Your task to perform on an android device: Go to Yahoo.com Image 0: 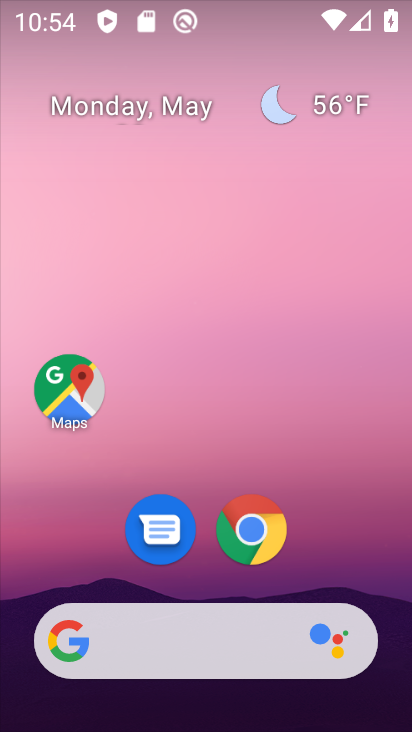
Step 0: click (252, 527)
Your task to perform on an android device: Go to Yahoo.com Image 1: 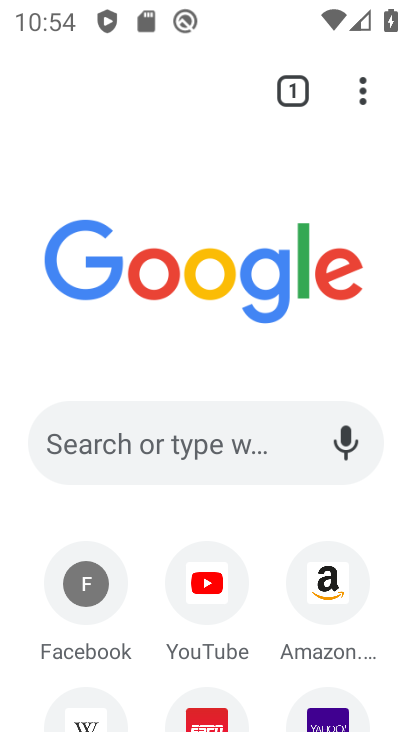
Step 1: click (214, 457)
Your task to perform on an android device: Go to Yahoo.com Image 2: 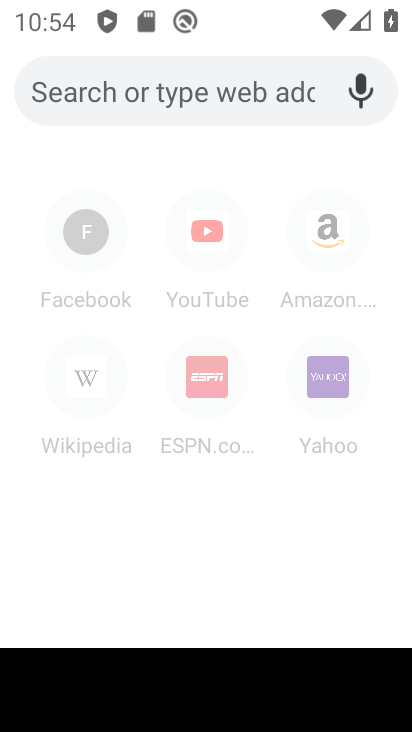
Step 2: type "Yahoo.com"
Your task to perform on an android device: Go to Yahoo.com Image 3: 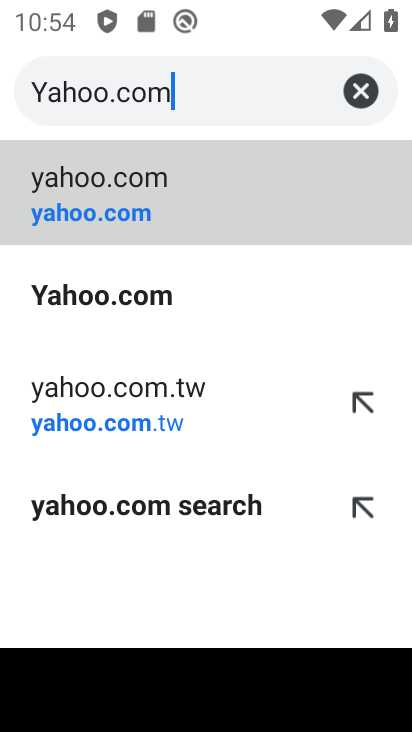
Step 3: click (67, 296)
Your task to perform on an android device: Go to Yahoo.com Image 4: 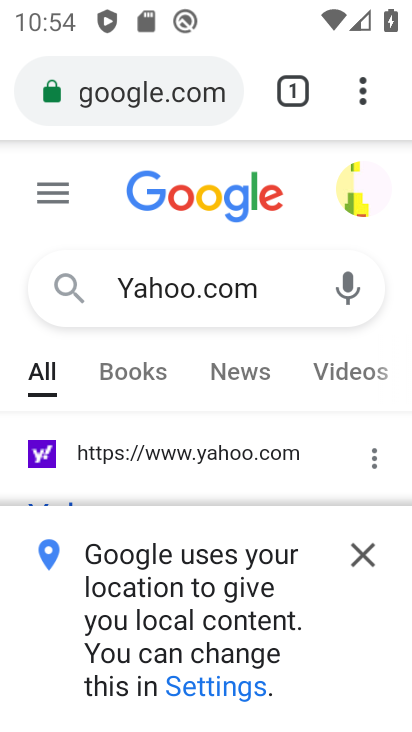
Step 4: click (359, 556)
Your task to perform on an android device: Go to Yahoo.com Image 5: 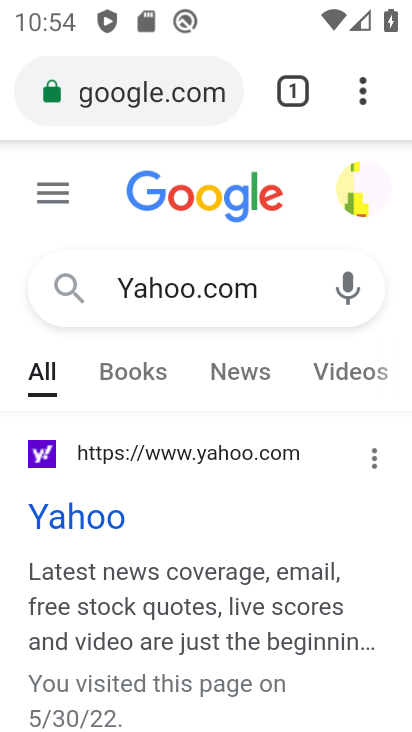
Step 5: click (180, 487)
Your task to perform on an android device: Go to Yahoo.com Image 6: 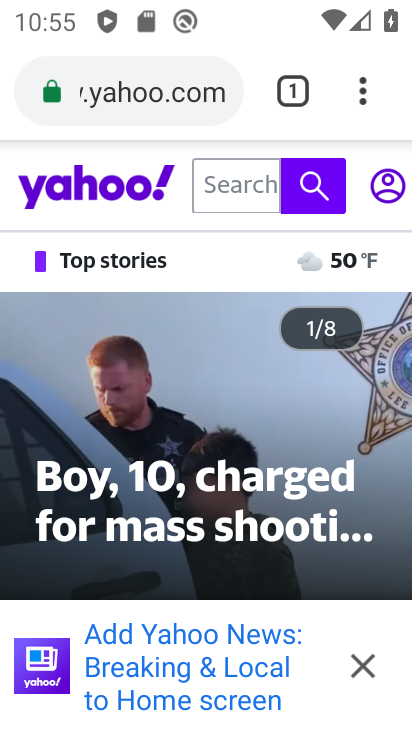
Step 6: task complete